Your task to perform on an android device: Open Chrome and go to the settings page Image 0: 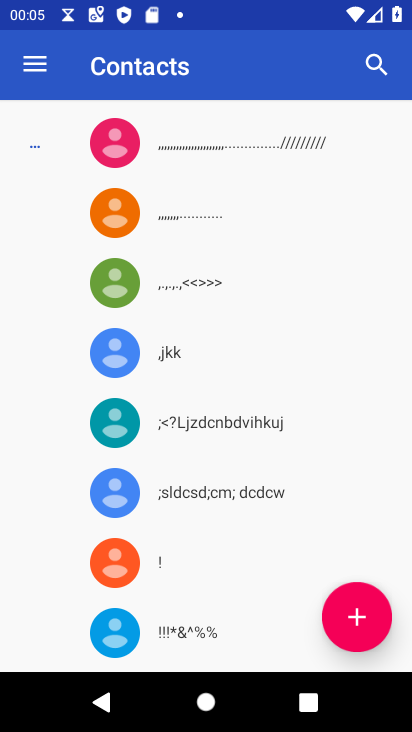
Step 0: press back button
Your task to perform on an android device: Open Chrome and go to the settings page Image 1: 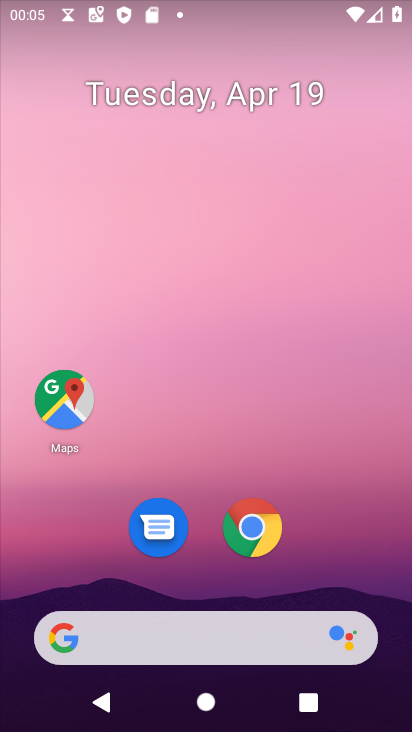
Step 1: click (249, 532)
Your task to perform on an android device: Open Chrome and go to the settings page Image 2: 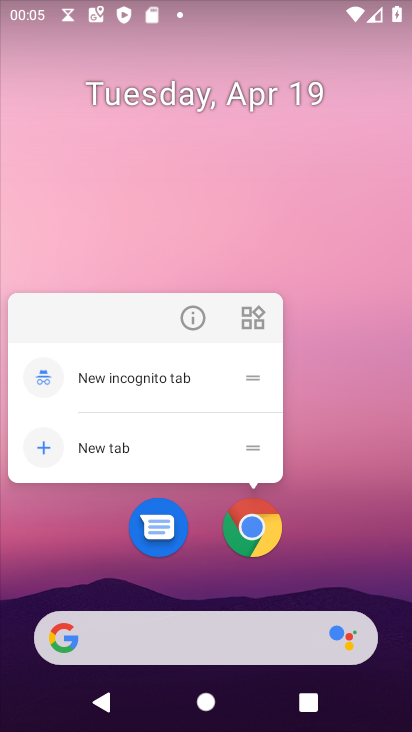
Step 2: click (255, 528)
Your task to perform on an android device: Open Chrome and go to the settings page Image 3: 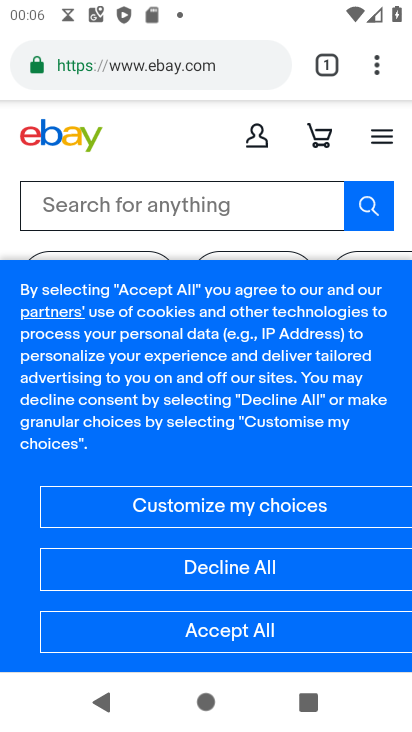
Step 3: click (374, 65)
Your task to perform on an android device: Open Chrome and go to the settings page Image 4: 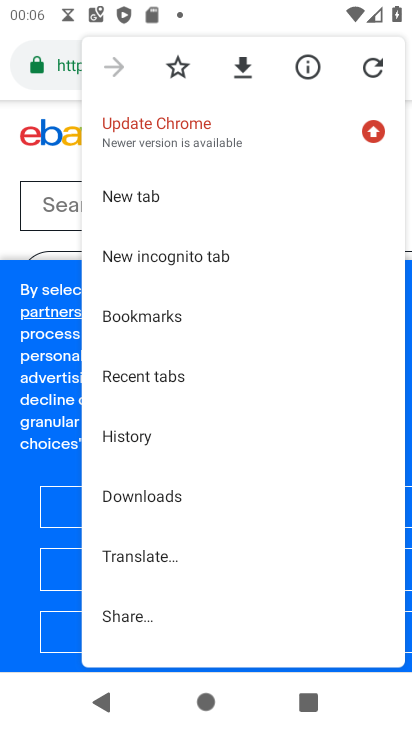
Step 4: drag from (169, 587) to (212, 358)
Your task to perform on an android device: Open Chrome and go to the settings page Image 5: 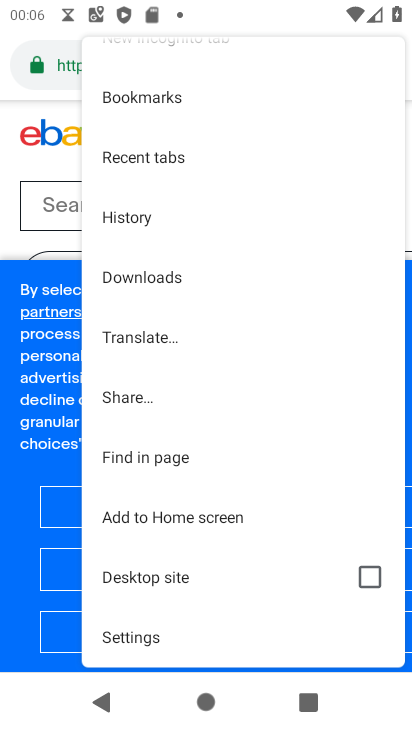
Step 5: click (174, 643)
Your task to perform on an android device: Open Chrome and go to the settings page Image 6: 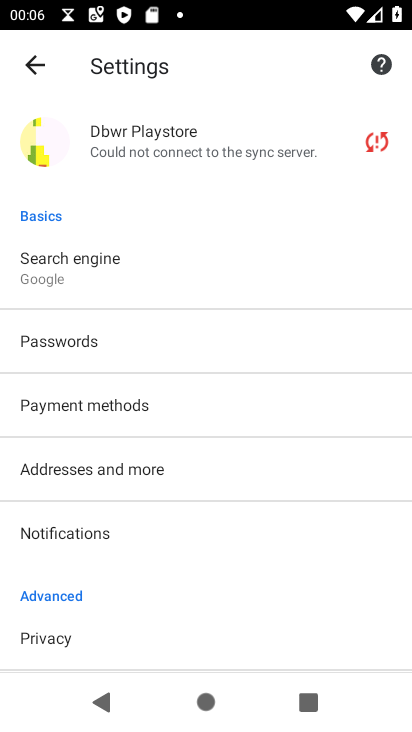
Step 6: task complete